Your task to perform on an android device: turn on priority inbox in the gmail app Image 0: 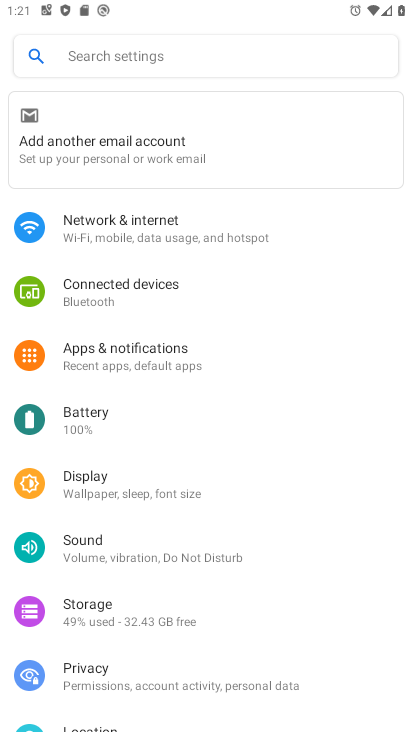
Step 0: press home button
Your task to perform on an android device: turn on priority inbox in the gmail app Image 1: 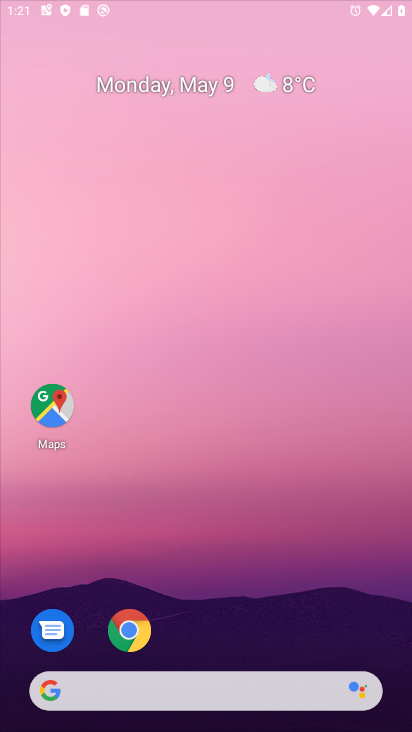
Step 1: drag from (325, 636) to (266, 54)
Your task to perform on an android device: turn on priority inbox in the gmail app Image 2: 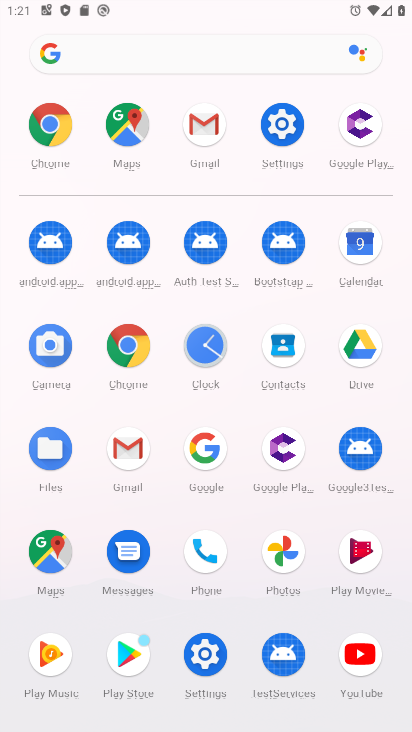
Step 2: click (125, 447)
Your task to perform on an android device: turn on priority inbox in the gmail app Image 3: 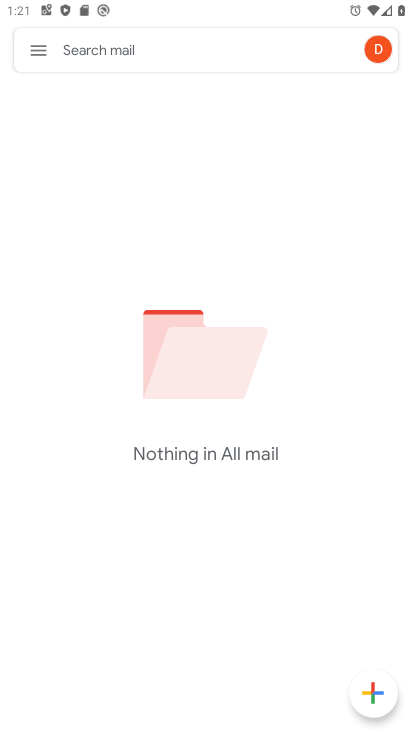
Step 3: click (35, 49)
Your task to perform on an android device: turn on priority inbox in the gmail app Image 4: 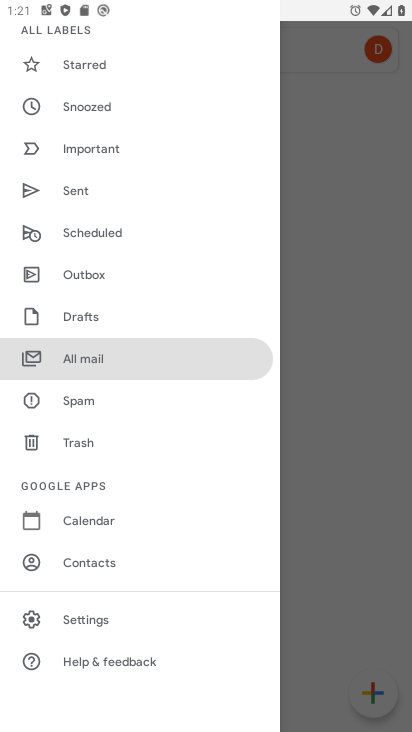
Step 4: click (123, 630)
Your task to perform on an android device: turn on priority inbox in the gmail app Image 5: 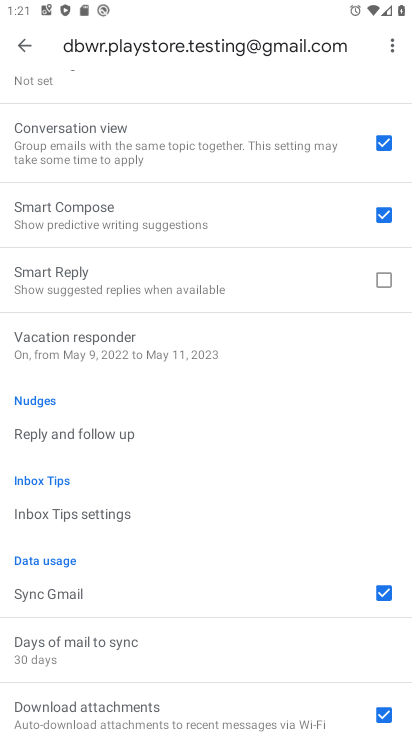
Step 5: drag from (157, 187) to (190, 726)
Your task to perform on an android device: turn on priority inbox in the gmail app Image 6: 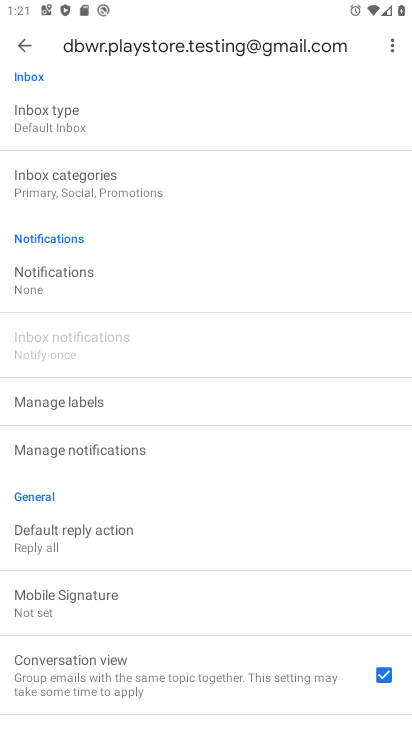
Step 6: drag from (150, 148) to (203, 578)
Your task to perform on an android device: turn on priority inbox in the gmail app Image 7: 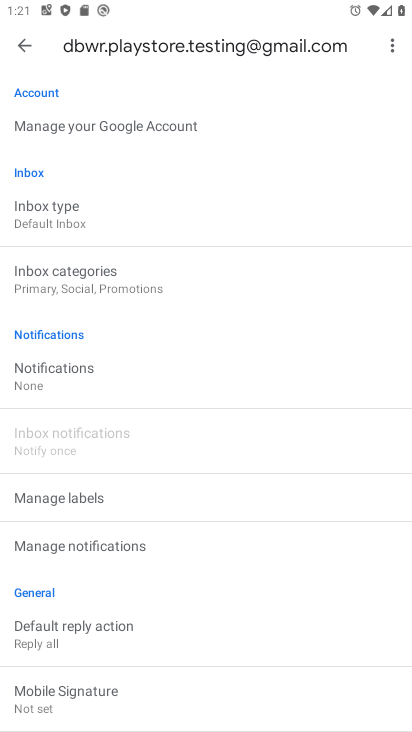
Step 7: click (130, 212)
Your task to perform on an android device: turn on priority inbox in the gmail app Image 8: 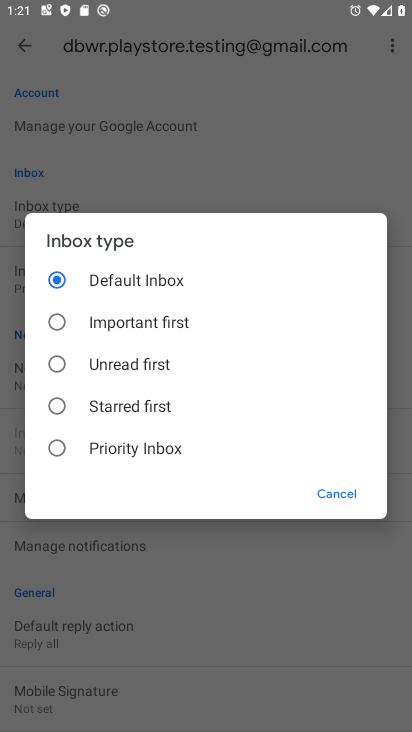
Step 8: click (102, 451)
Your task to perform on an android device: turn on priority inbox in the gmail app Image 9: 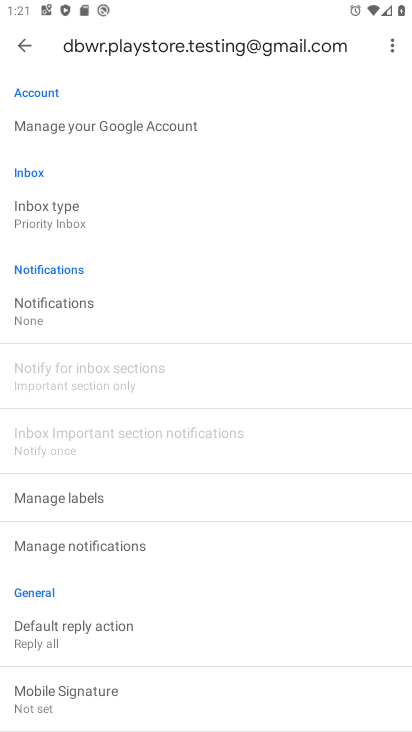
Step 9: task complete